Your task to perform on an android device: add a contact in the contacts app Image 0: 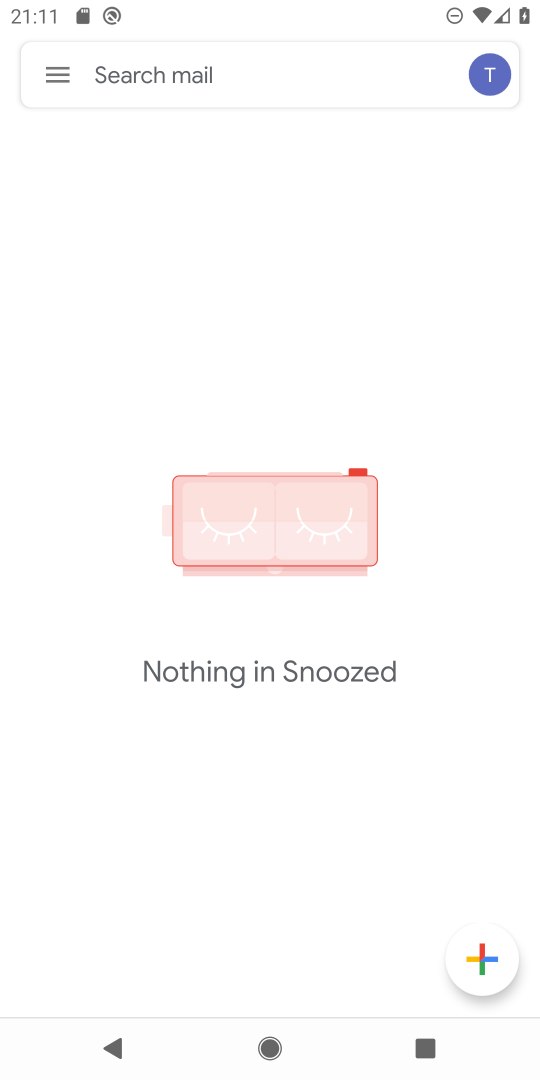
Step 0: press home button
Your task to perform on an android device: add a contact in the contacts app Image 1: 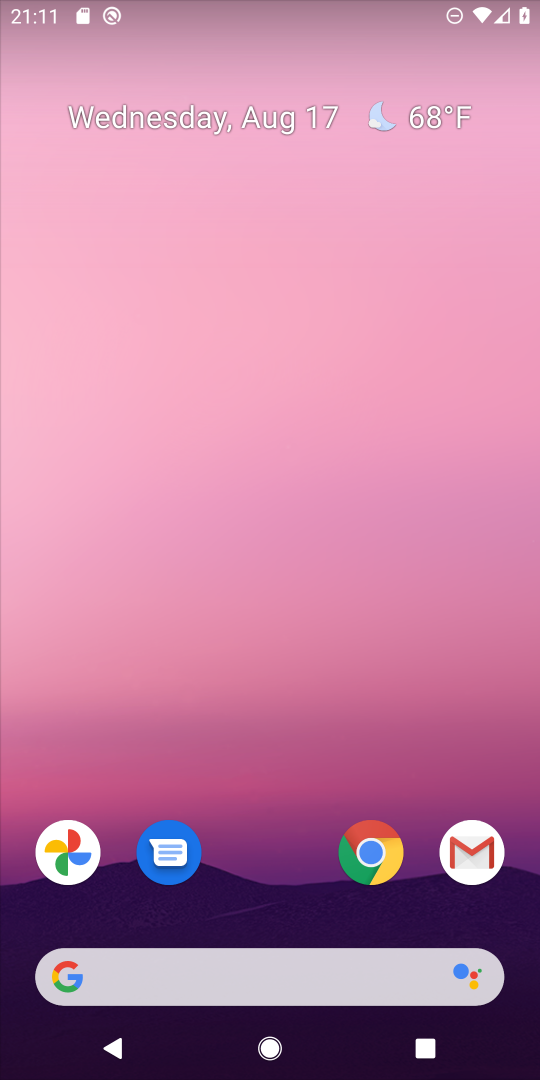
Step 1: drag from (272, 881) to (297, 381)
Your task to perform on an android device: add a contact in the contacts app Image 2: 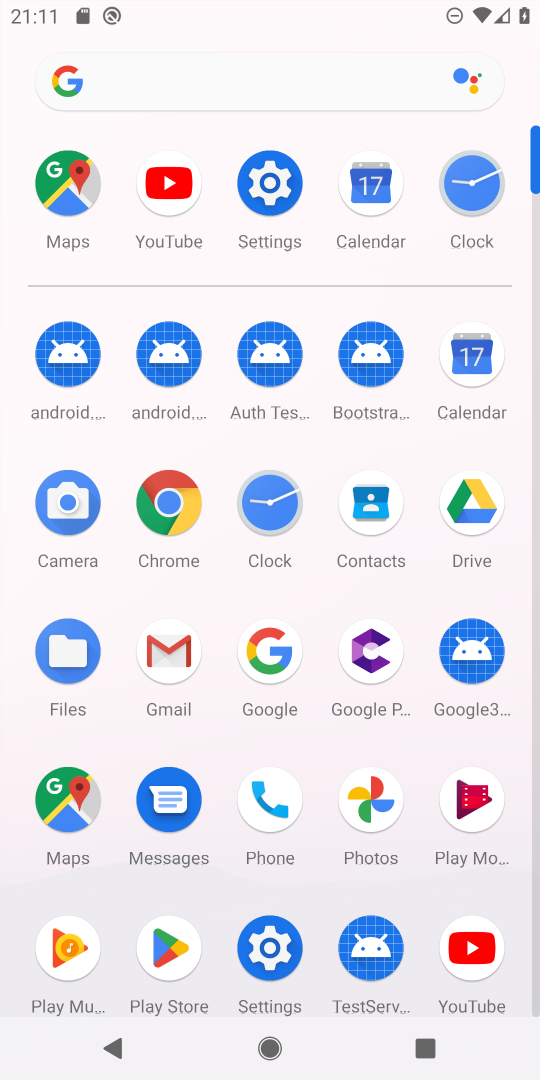
Step 2: click (368, 495)
Your task to perform on an android device: add a contact in the contacts app Image 3: 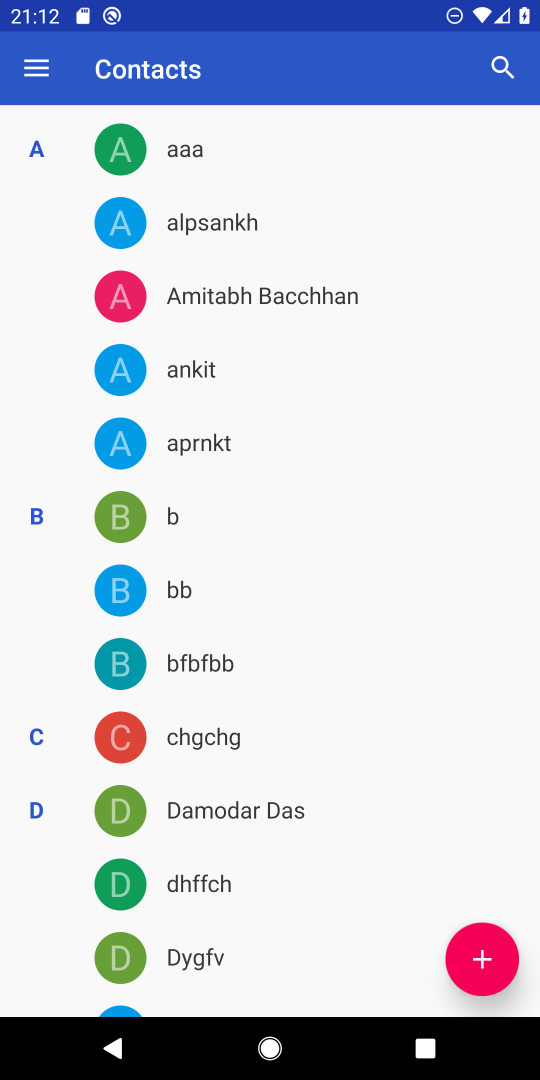
Step 3: click (481, 971)
Your task to perform on an android device: add a contact in the contacts app Image 4: 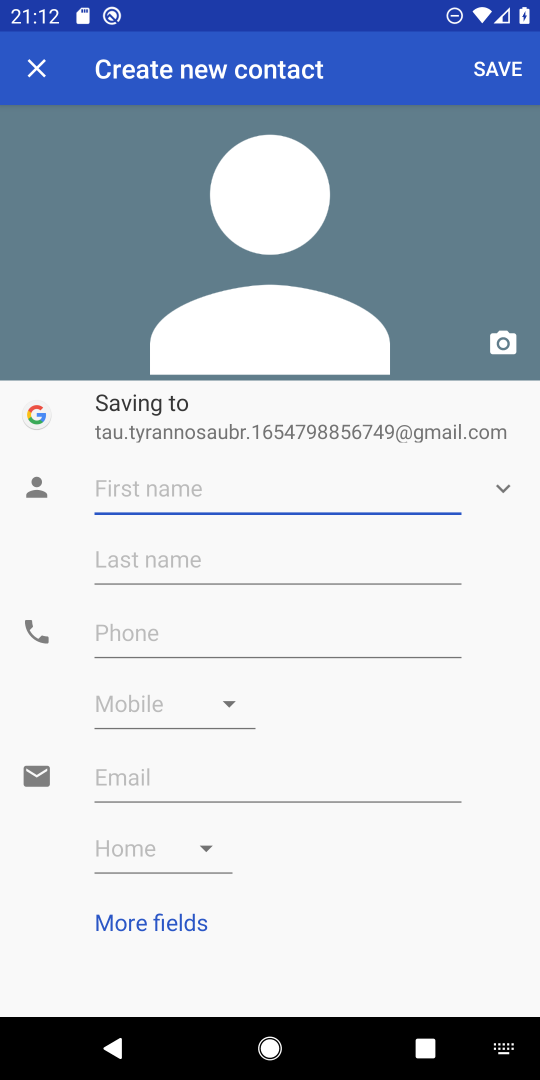
Step 4: type "bbbbb"
Your task to perform on an android device: add a contact in the contacts app Image 5: 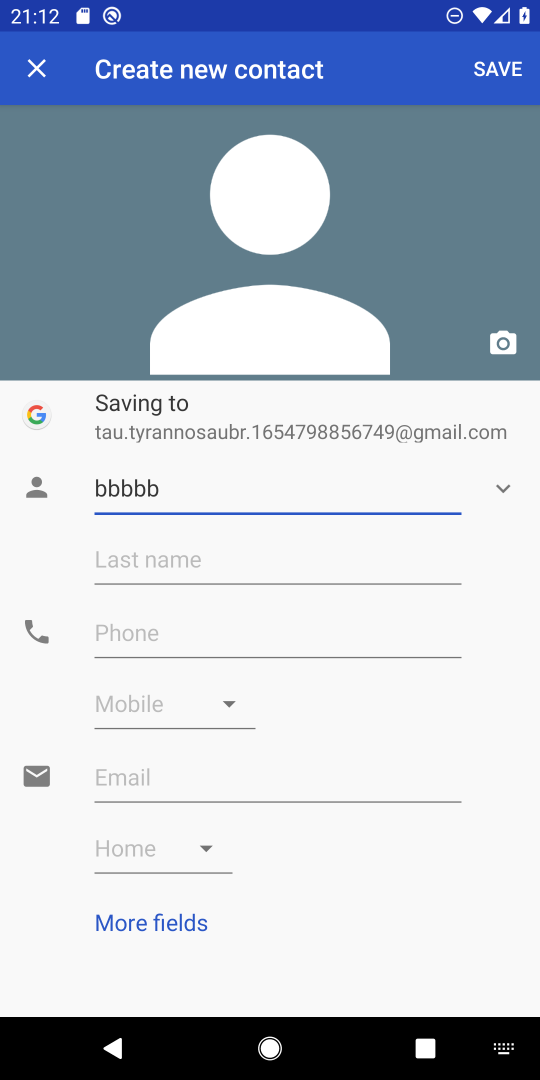
Step 5: click (159, 627)
Your task to perform on an android device: add a contact in the contacts app Image 6: 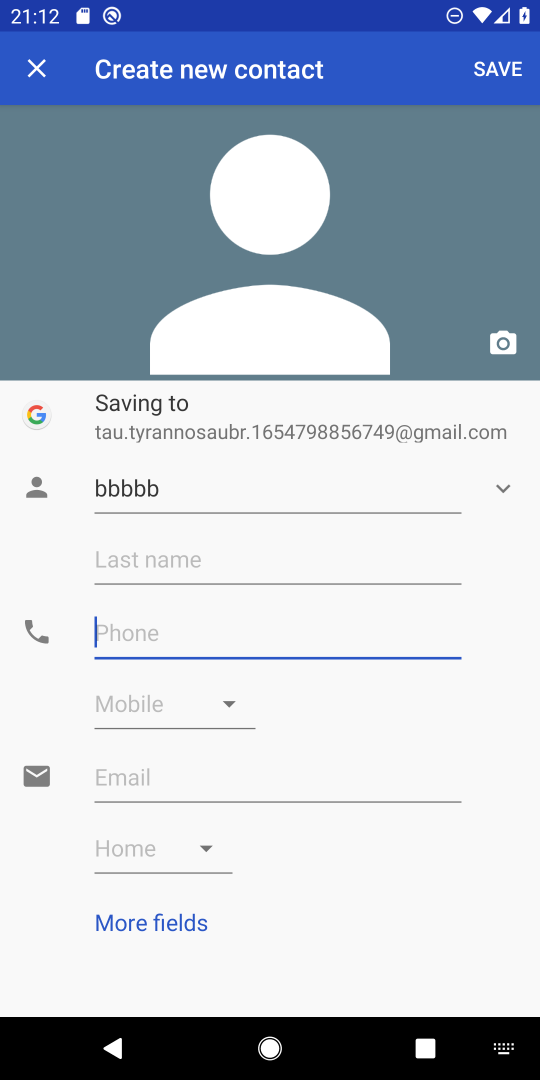
Step 6: type "8888"
Your task to perform on an android device: add a contact in the contacts app Image 7: 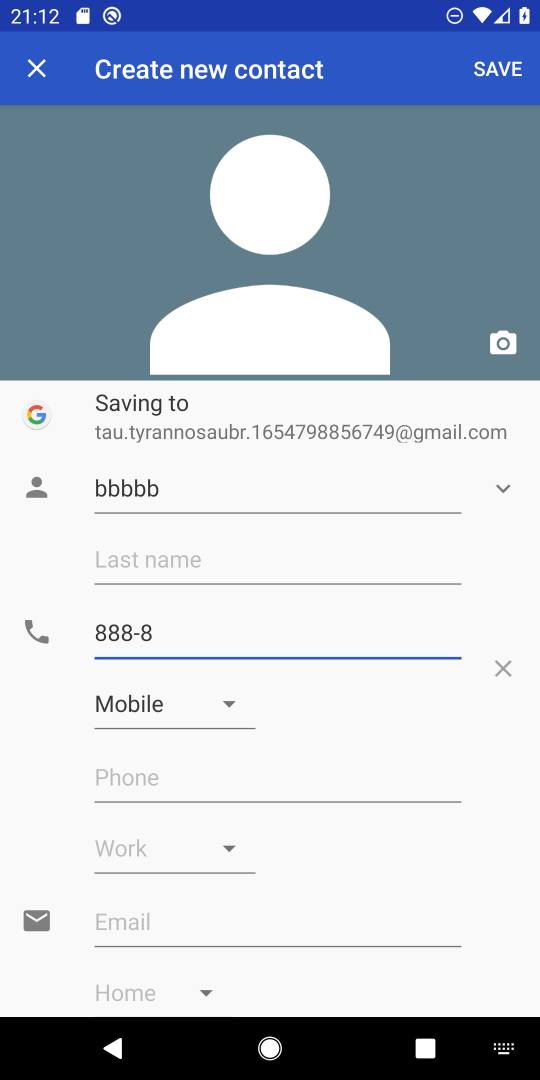
Step 7: click (491, 67)
Your task to perform on an android device: add a contact in the contacts app Image 8: 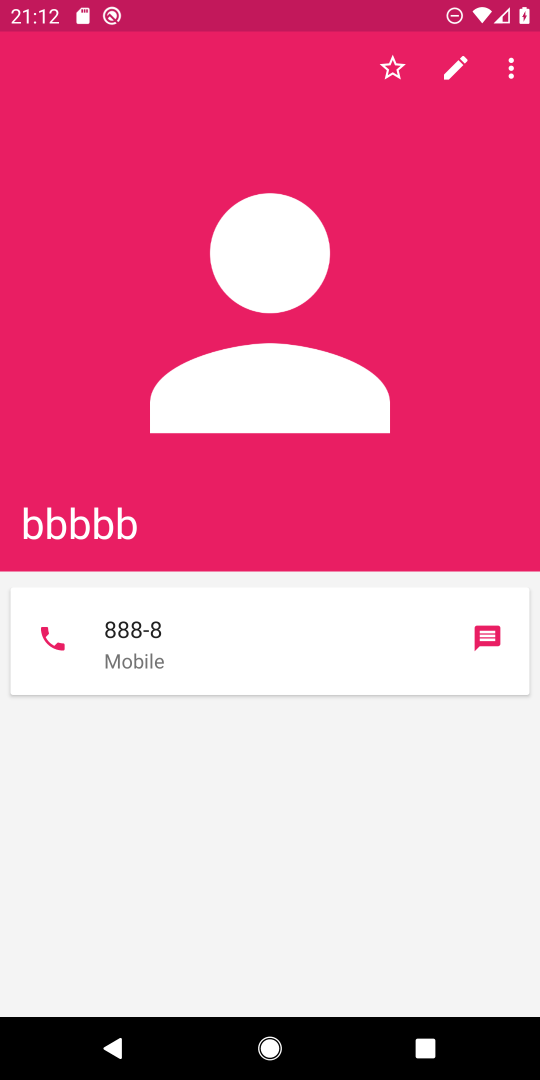
Step 8: task complete